Your task to perform on an android device: Open calendar and show me the third week of next month Image 0: 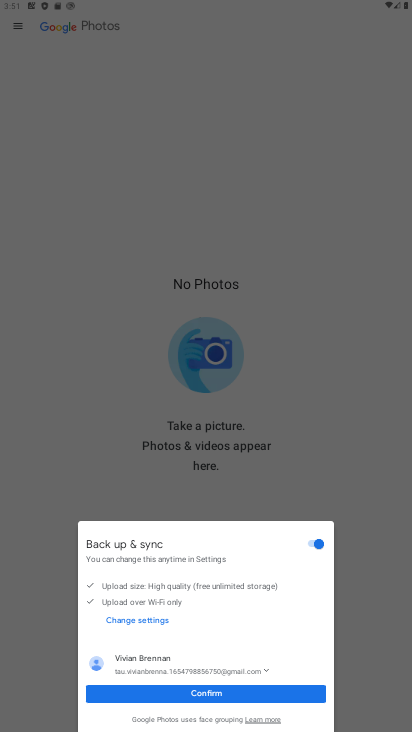
Step 0: press home button
Your task to perform on an android device: Open calendar and show me the third week of next month Image 1: 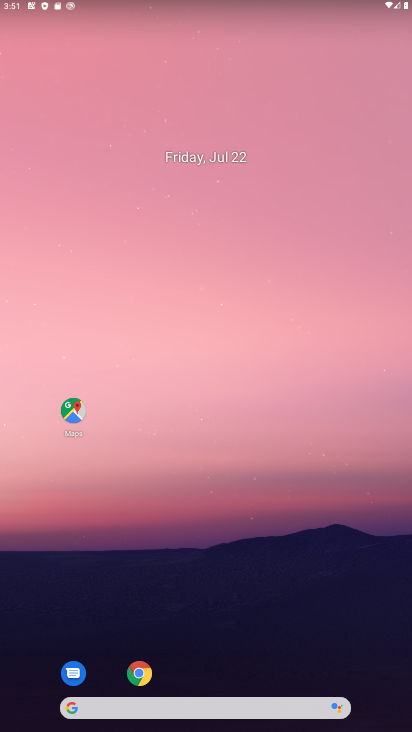
Step 1: drag from (209, 671) to (252, 78)
Your task to perform on an android device: Open calendar and show me the third week of next month Image 2: 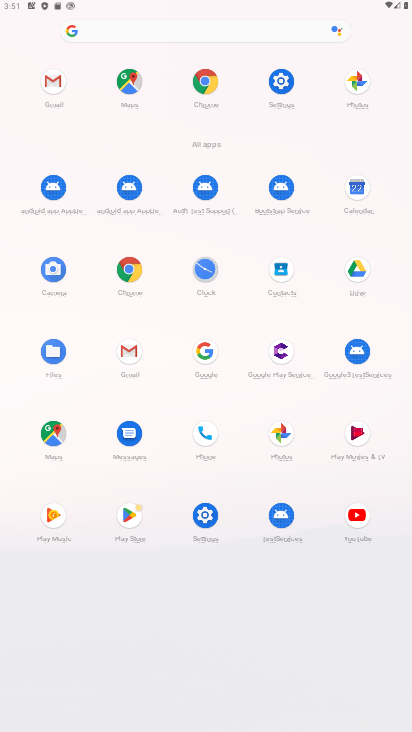
Step 2: click (353, 183)
Your task to perform on an android device: Open calendar and show me the third week of next month Image 3: 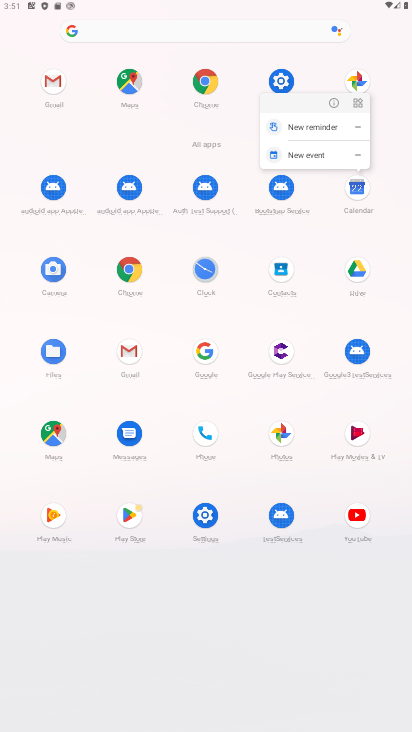
Step 3: click (356, 191)
Your task to perform on an android device: Open calendar and show me the third week of next month Image 4: 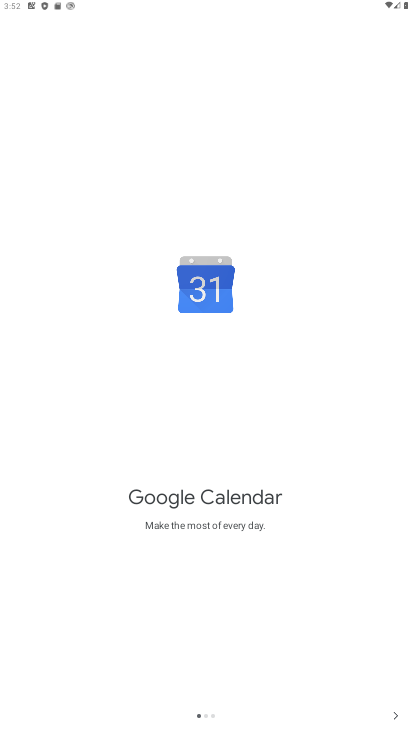
Step 4: click (391, 714)
Your task to perform on an android device: Open calendar and show me the third week of next month Image 5: 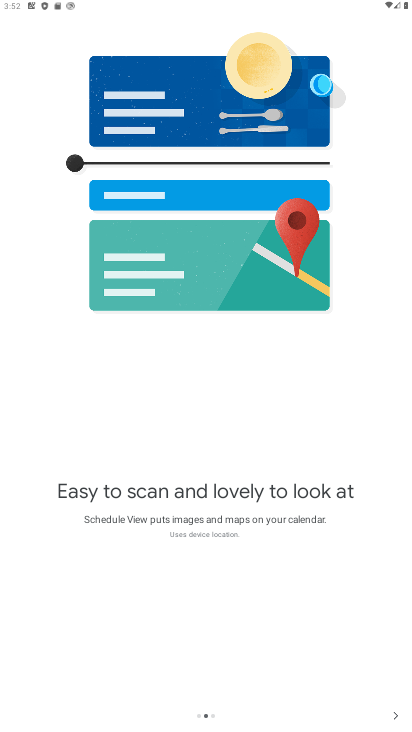
Step 5: click (391, 714)
Your task to perform on an android device: Open calendar and show me the third week of next month Image 6: 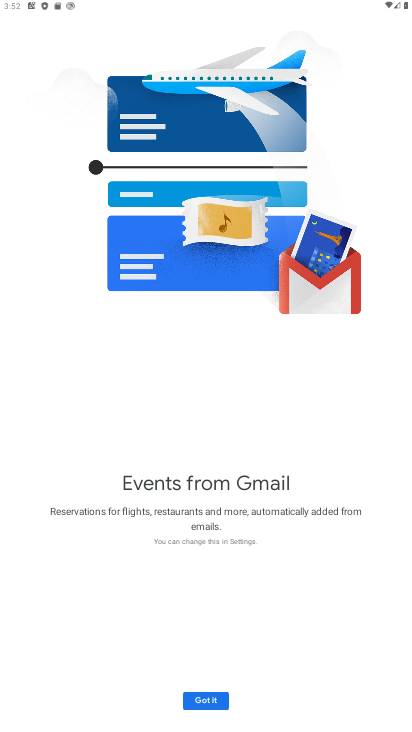
Step 6: click (391, 714)
Your task to perform on an android device: Open calendar and show me the third week of next month Image 7: 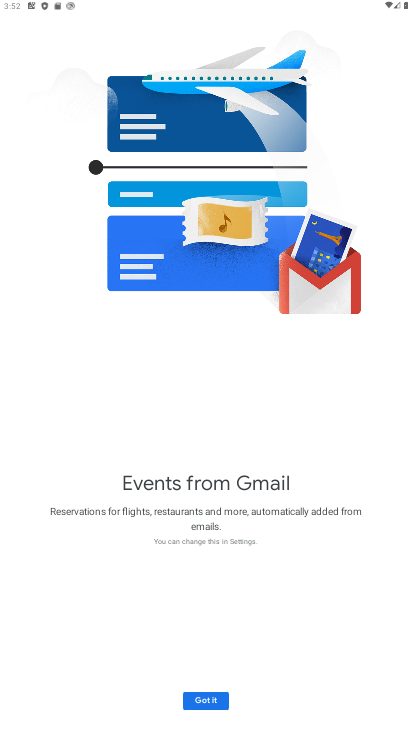
Step 7: click (195, 699)
Your task to perform on an android device: Open calendar and show me the third week of next month Image 8: 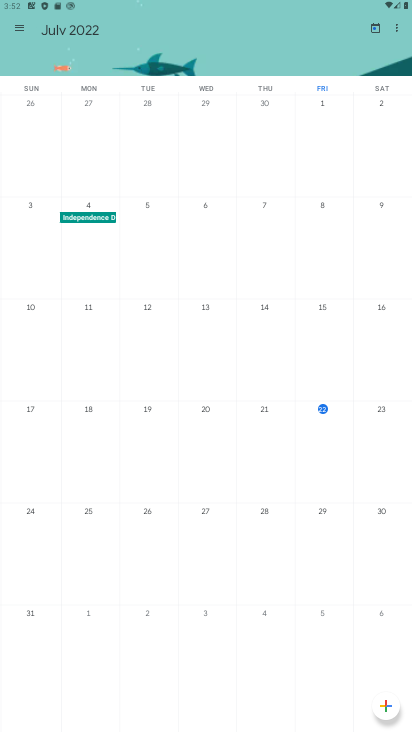
Step 8: click (22, 21)
Your task to perform on an android device: Open calendar and show me the third week of next month Image 9: 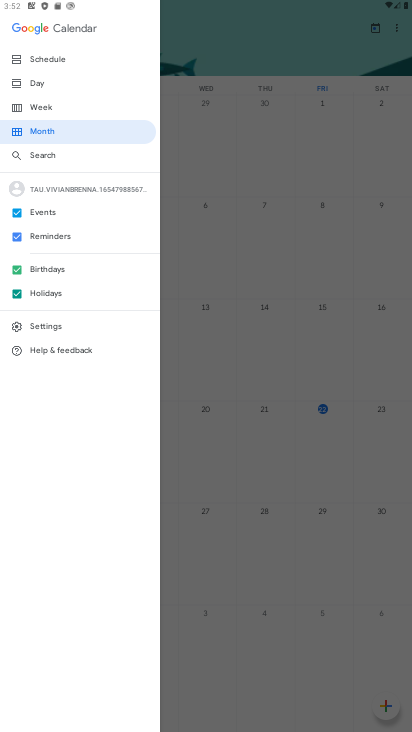
Step 9: click (41, 106)
Your task to perform on an android device: Open calendar and show me the third week of next month Image 10: 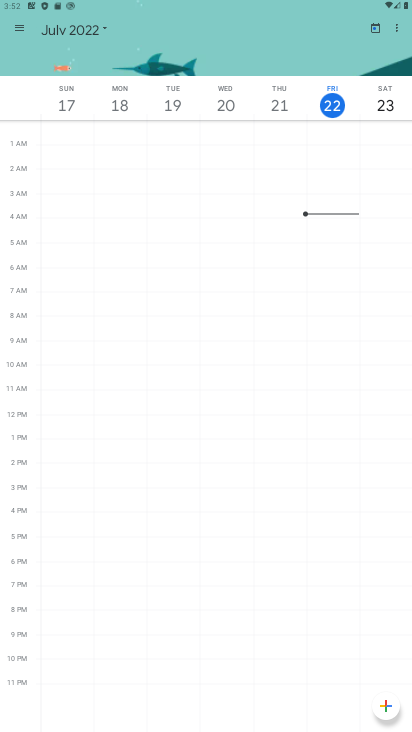
Step 10: click (99, 21)
Your task to perform on an android device: Open calendar and show me the third week of next month Image 11: 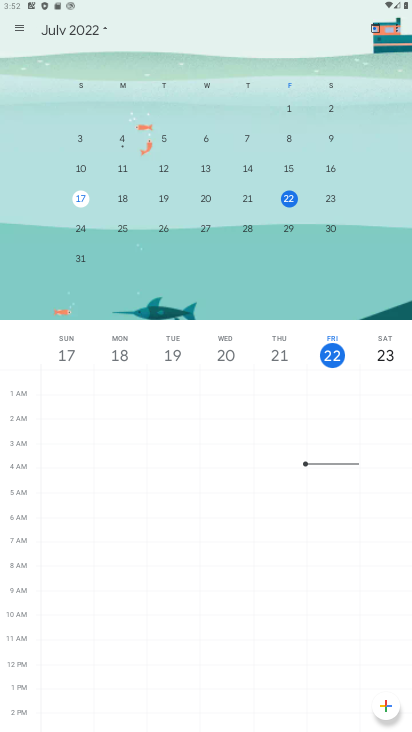
Step 11: drag from (332, 184) to (0, 171)
Your task to perform on an android device: Open calendar and show me the third week of next month Image 12: 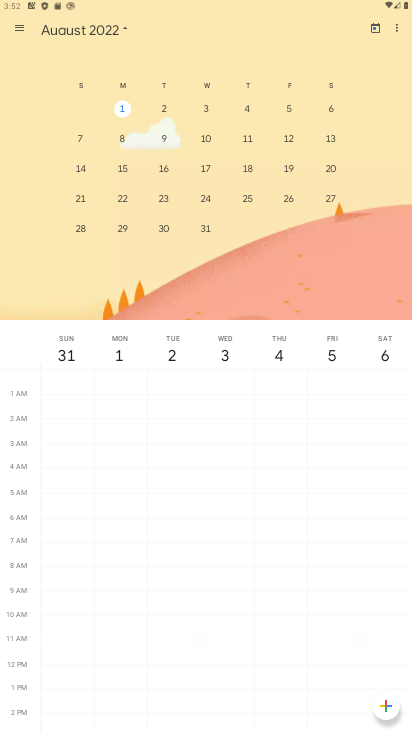
Step 12: click (81, 162)
Your task to perform on an android device: Open calendar and show me the third week of next month Image 13: 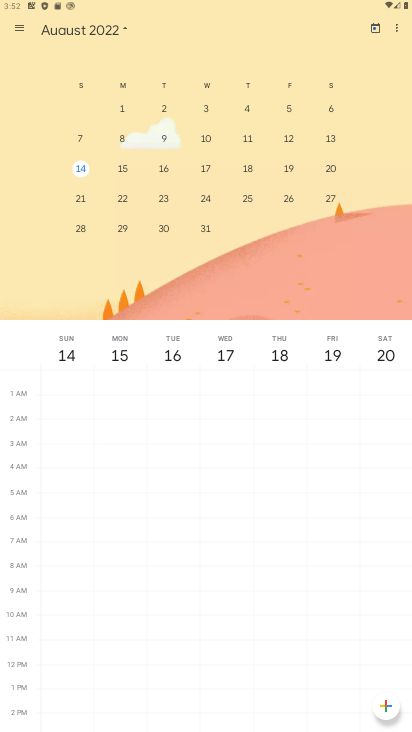
Step 13: click (120, 21)
Your task to perform on an android device: Open calendar and show me the third week of next month Image 14: 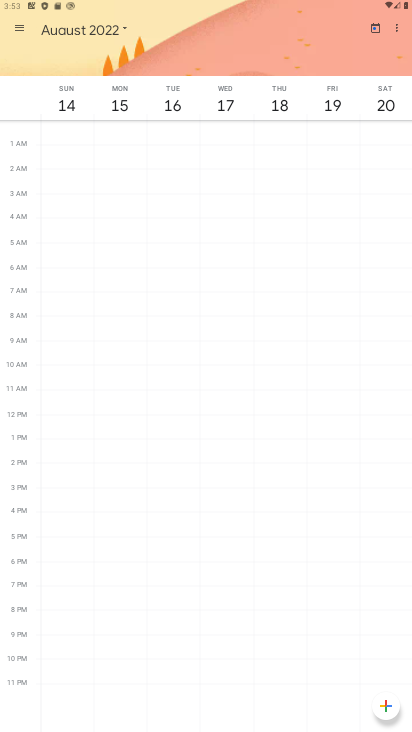
Step 14: click (308, 104)
Your task to perform on an android device: Open calendar and show me the third week of next month Image 15: 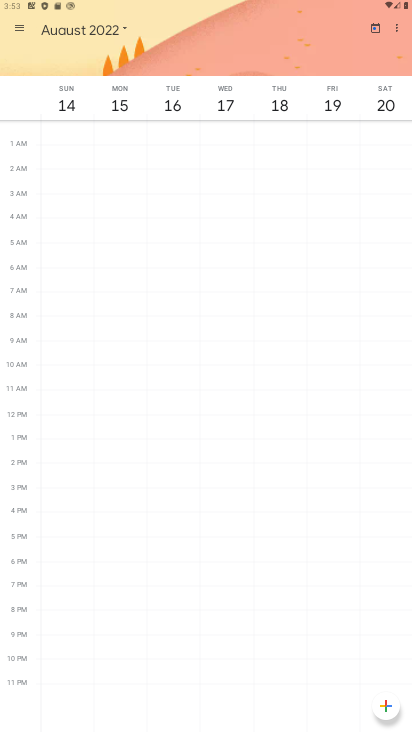
Step 15: click (64, 99)
Your task to perform on an android device: Open calendar and show me the third week of next month Image 16: 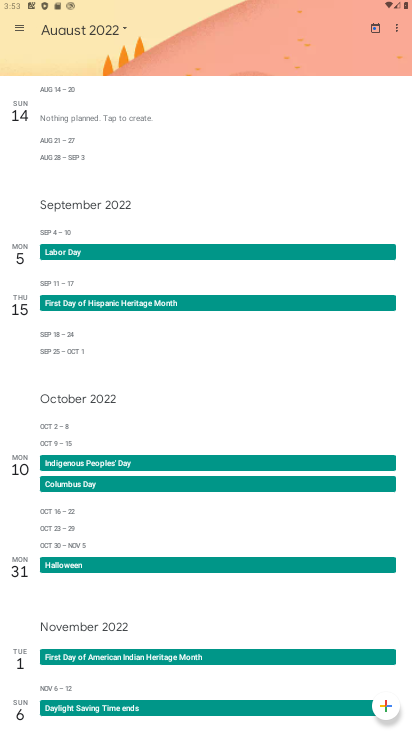
Step 16: task complete